Your task to perform on an android device: Open calendar and show me the second week of next month Image 0: 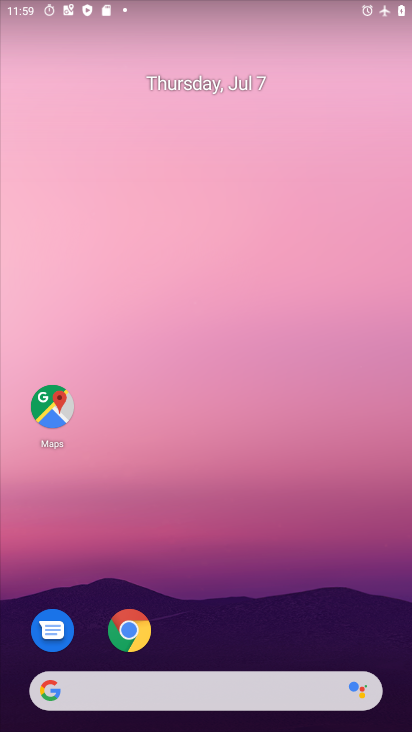
Step 0: drag from (197, 416) to (197, 91)
Your task to perform on an android device: Open calendar and show me the second week of next month Image 1: 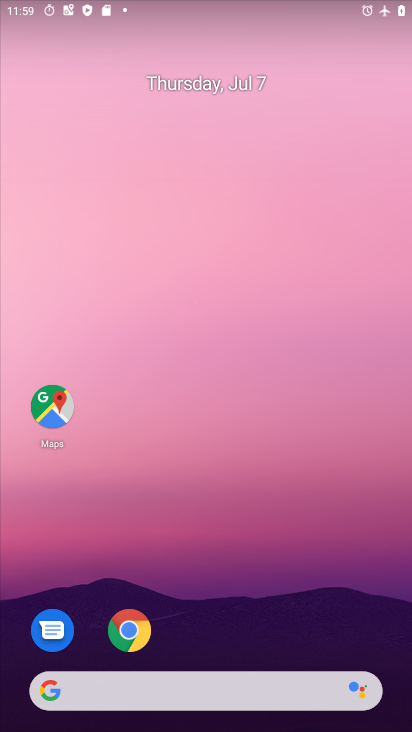
Step 1: drag from (209, 639) to (244, 34)
Your task to perform on an android device: Open calendar and show me the second week of next month Image 2: 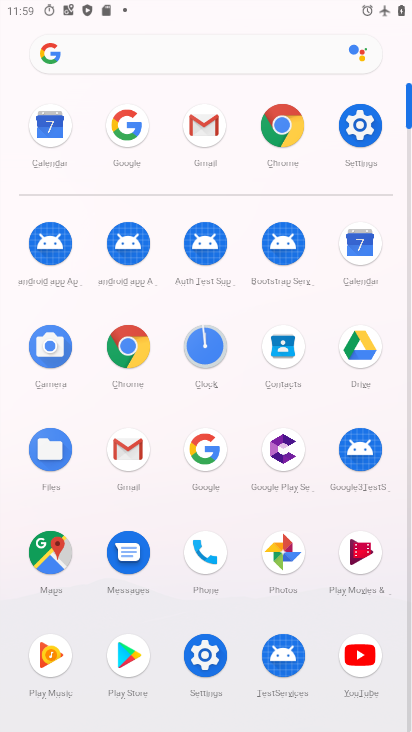
Step 2: click (360, 263)
Your task to perform on an android device: Open calendar and show me the second week of next month Image 3: 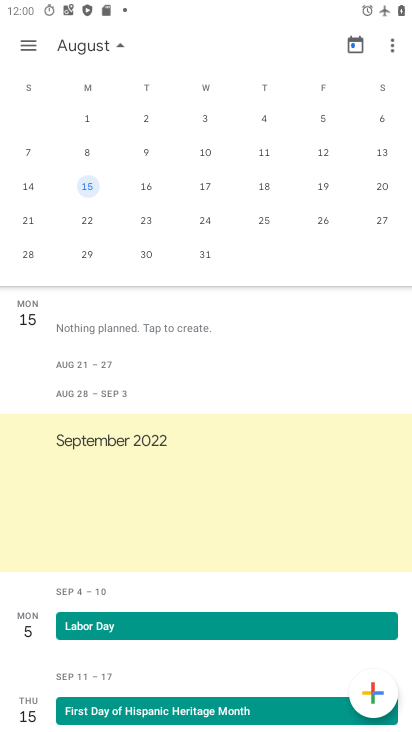
Step 3: click (85, 151)
Your task to perform on an android device: Open calendar and show me the second week of next month Image 4: 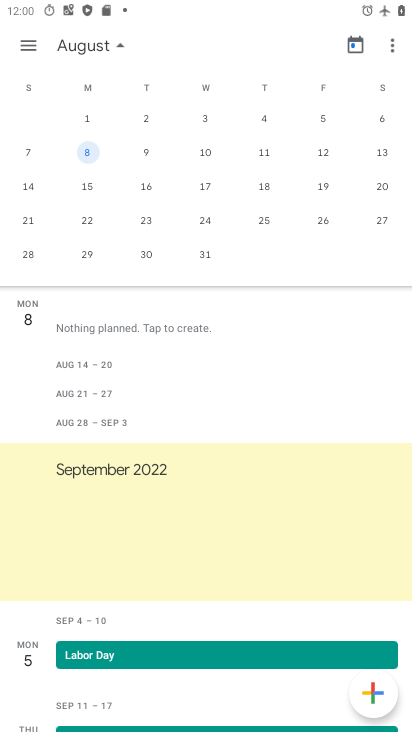
Step 4: task complete